Your task to perform on an android device: Go to Google maps Image 0: 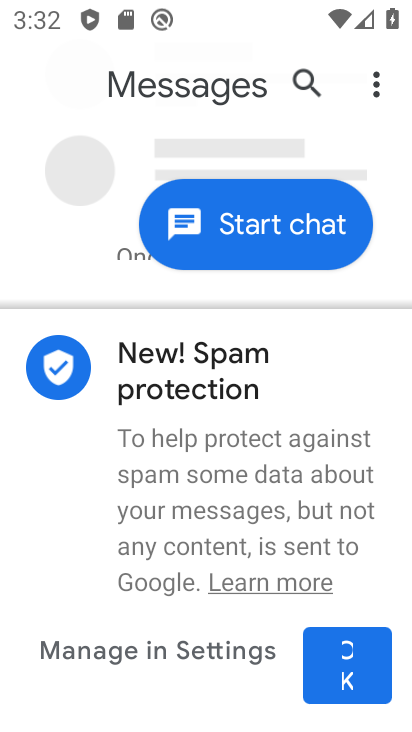
Step 0: press home button
Your task to perform on an android device: Go to Google maps Image 1: 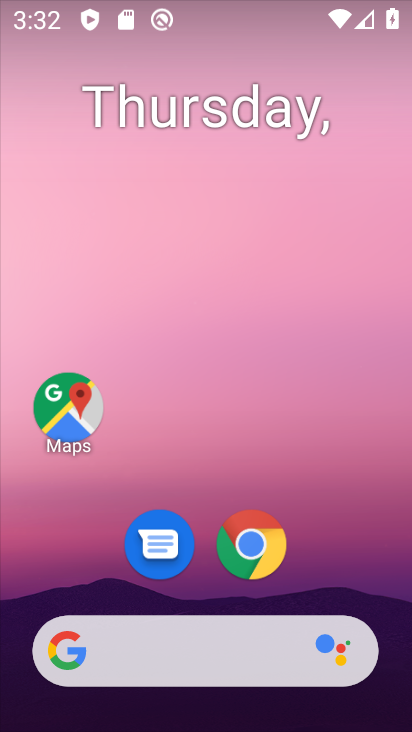
Step 1: click (73, 415)
Your task to perform on an android device: Go to Google maps Image 2: 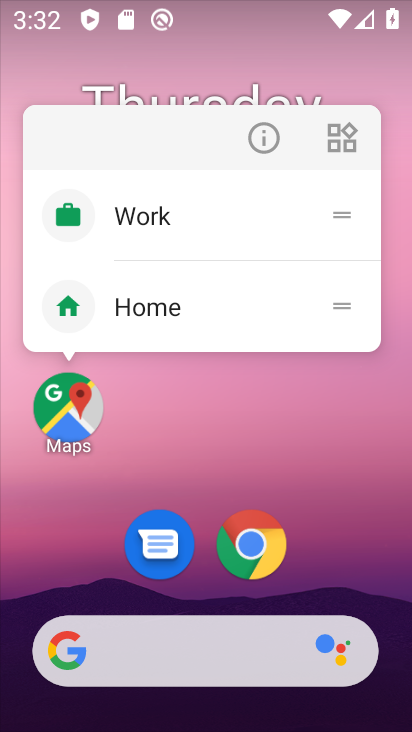
Step 2: click (73, 415)
Your task to perform on an android device: Go to Google maps Image 3: 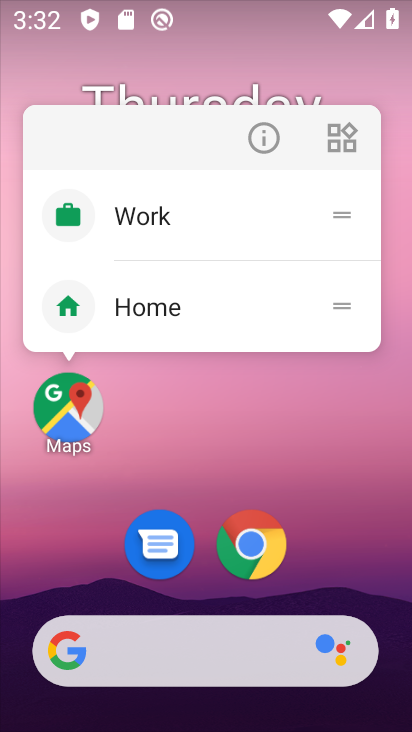
Step 3: click (49, 393)
Your task to perform on an android device: Go to Google maps Image 4: 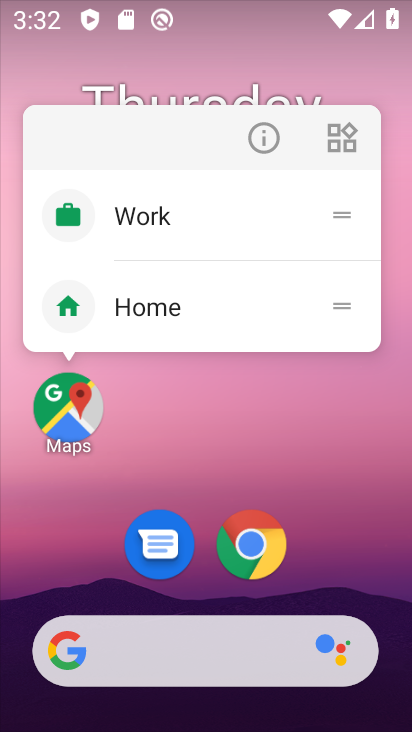
Step 4: click (49, 393)
Your task to perform on an android device: Go to Google maps Image 5: 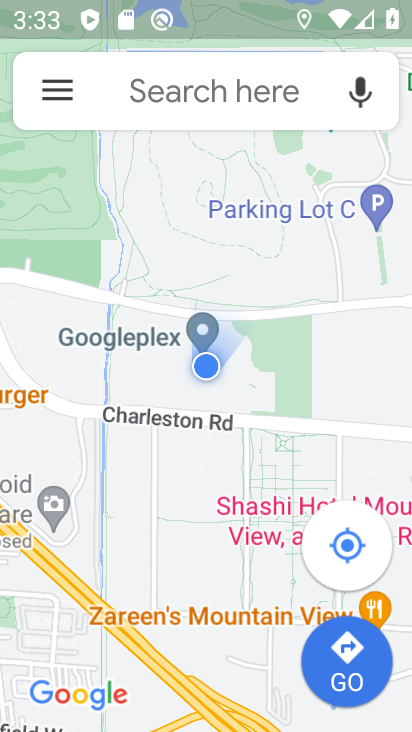
Step 5: task complete